Your task to perform on an android device: Clear the cart on walmart. Search for "razer deathadder" on walmart, select the first entry, and add it to the cart. Image 0: 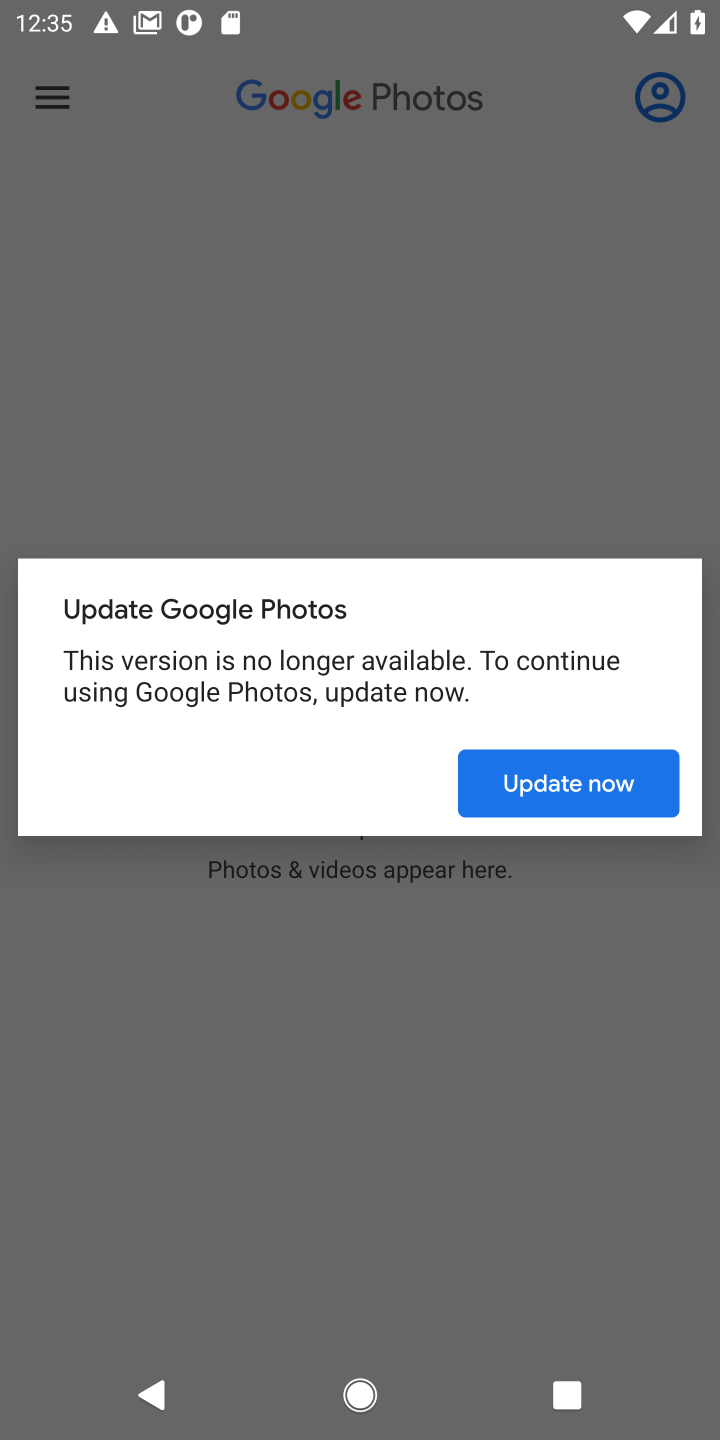
Step 0: press home button
Your task to perform on an android device: Clear the cart on walmart. Search for "razer deathadder" on walmart, select the first entry, and add it to the cart. Image 1: 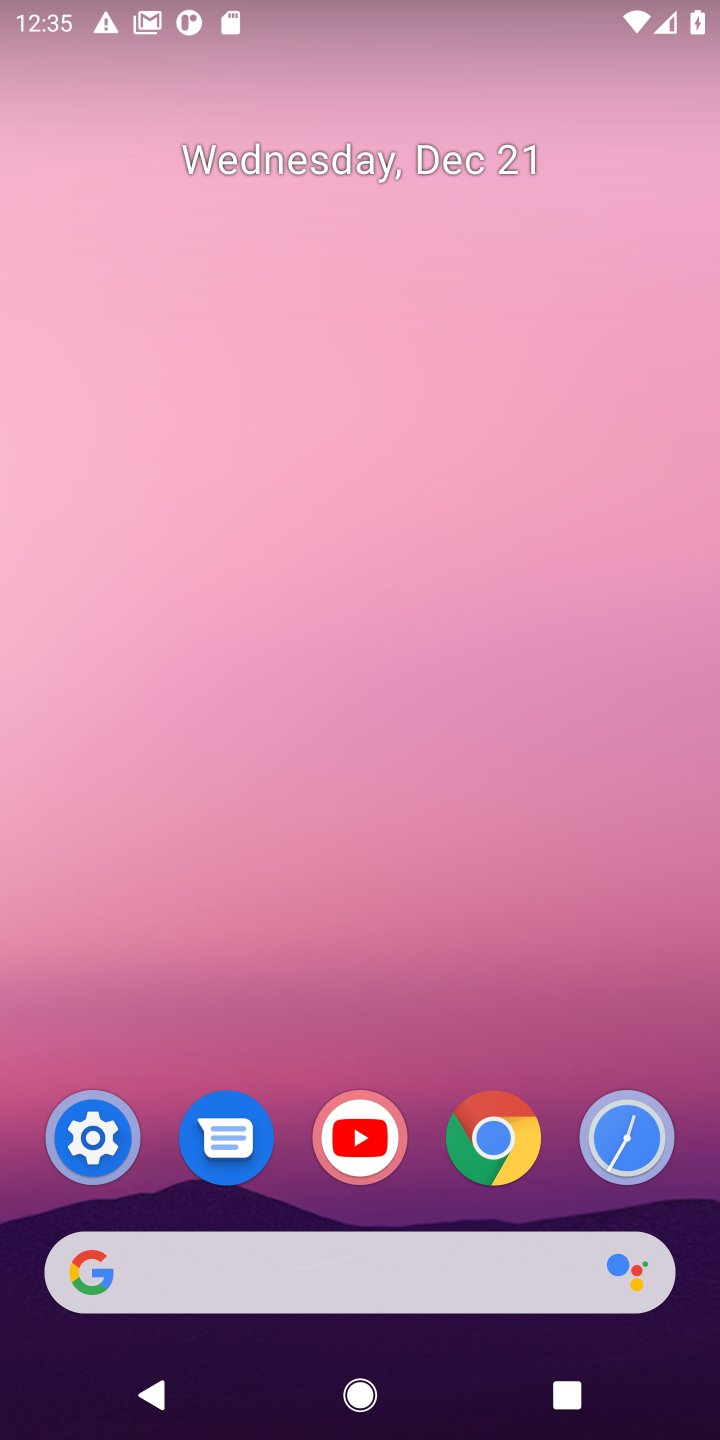
Step 1: click (429, 1285)
Your task to perform on an android device: Clear the cart on walmart. Search for "razer deathadder" on walmart, select the first entry, and add it to the cart. Image 2: 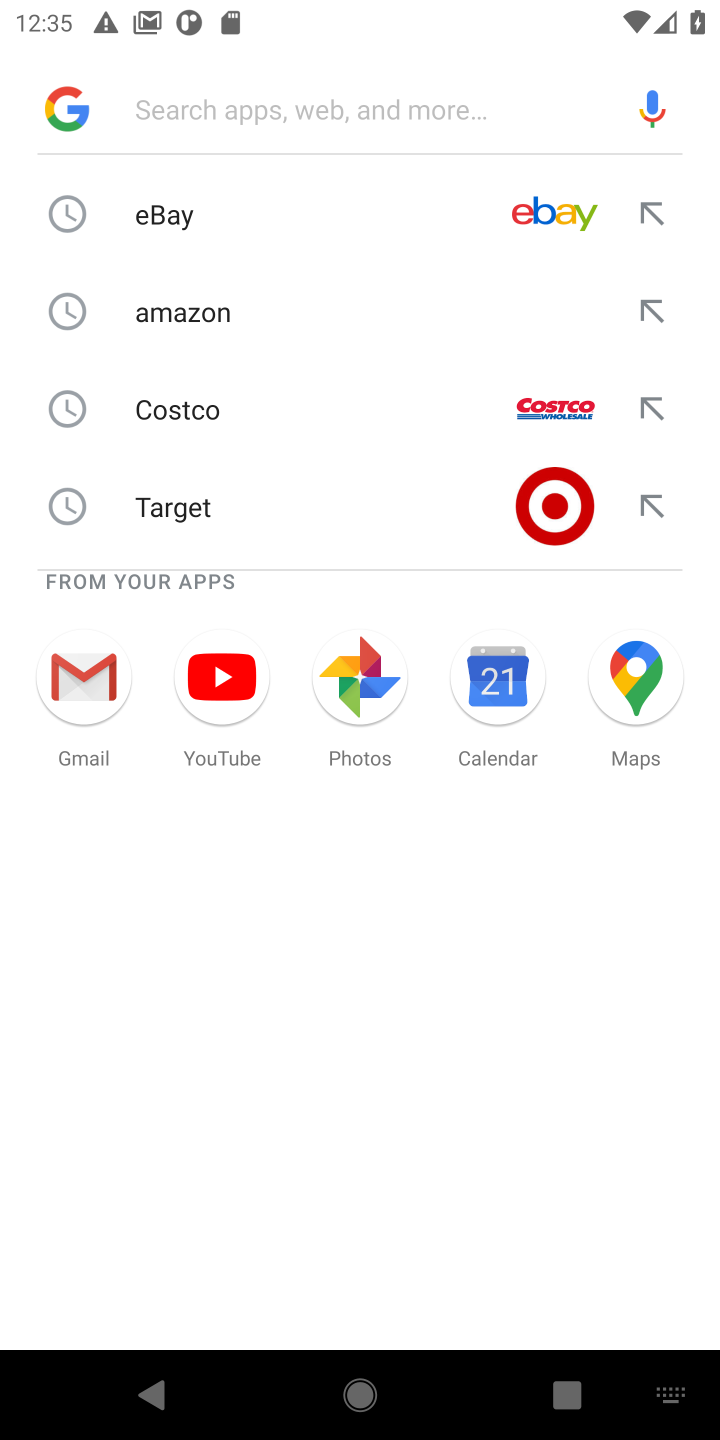
Step 2: type "walmart"
Your task to perform on an android device: Clear the cart on walmart. Search for "razer deathadder" on walmart, select the first entry, and add it to the cart. Image 3: 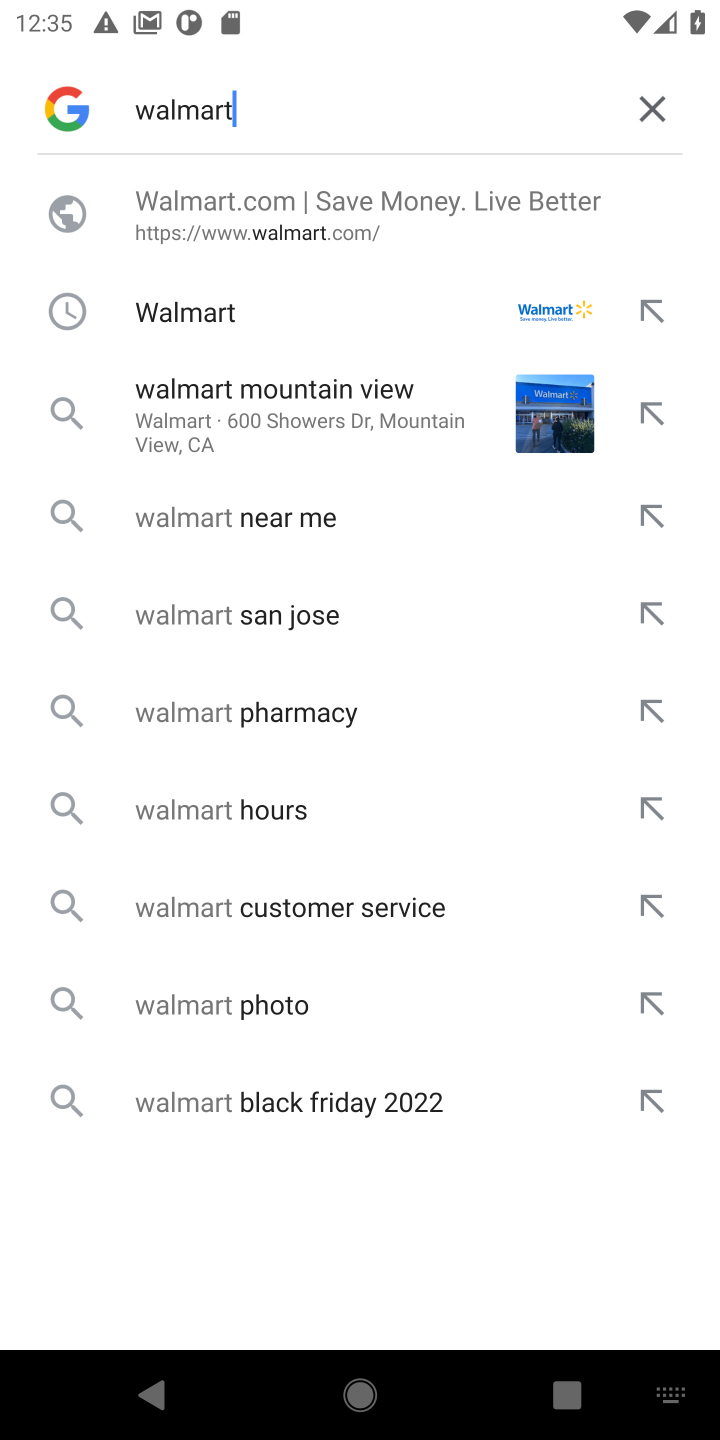
Step 3: click (361, 104)
Your task to perform on an android device: Clear the cart on walmart. Search for "razer deathadder" on walmart, select the first entry, and add it to the cart. Image 4: 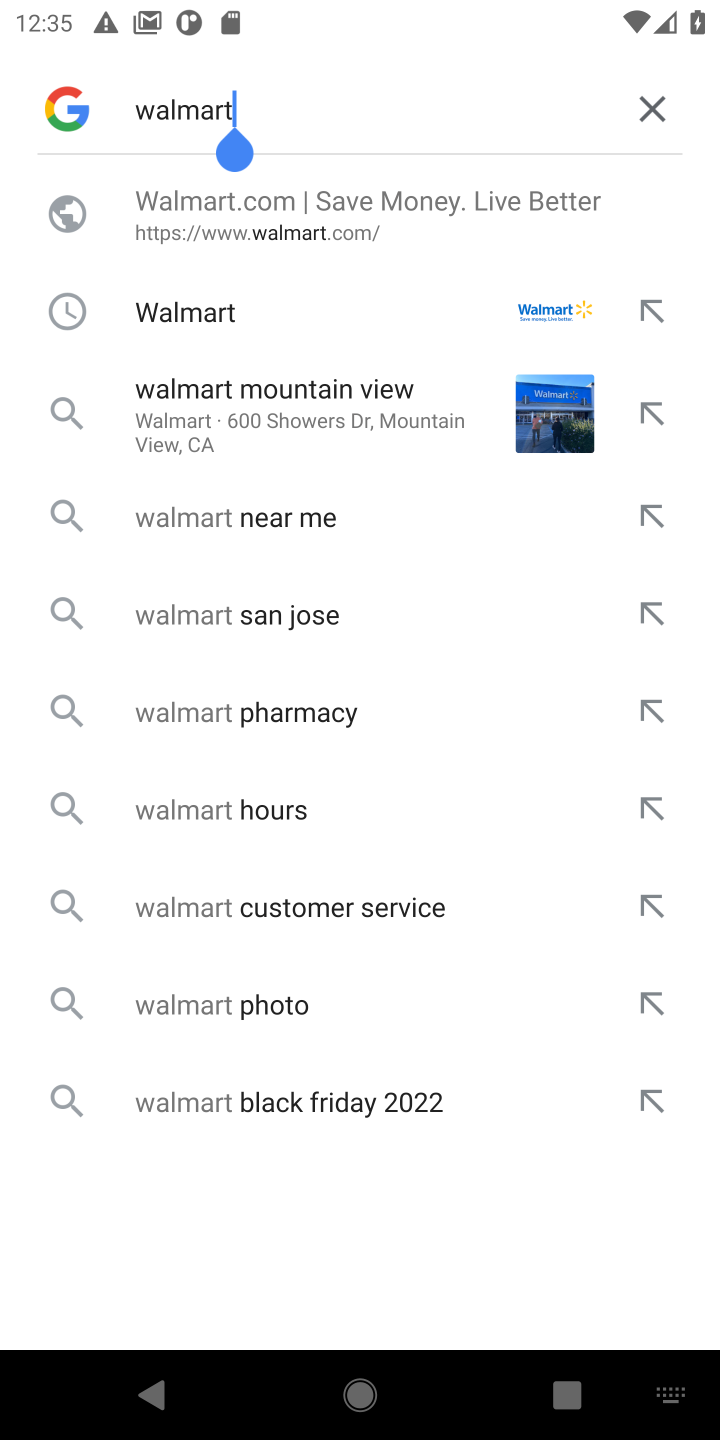
Step 4: click (332, 209)
Your task to perform on an android device: Clear the cart on walmart. Search for "razer deathadder" on walmart, select the first entry, and add it to the cart. Image 5: 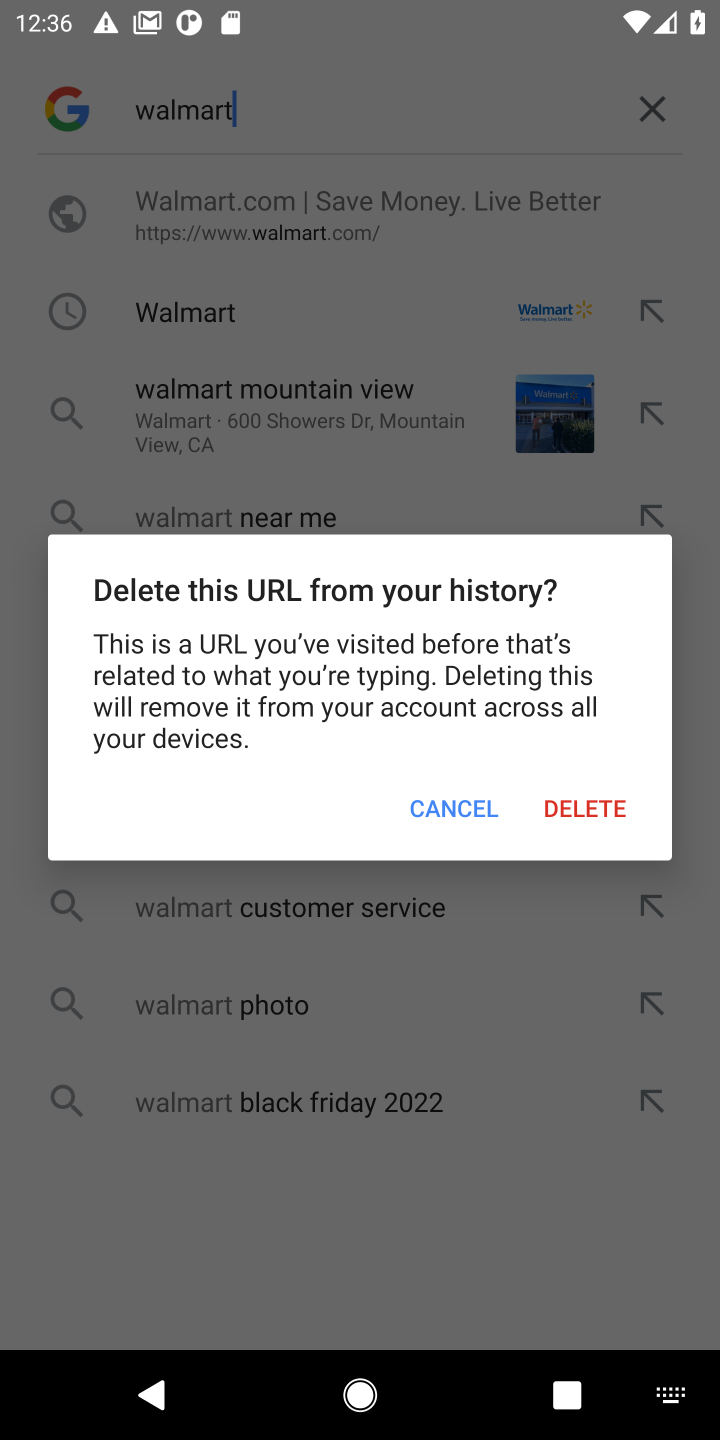
Step 5: click (464, 810)
Your task to perform on an android device: Clear the cart on walmart. Search for "razer deathadder" on walmart, select the first entry, and add it to the cart. Image 6: 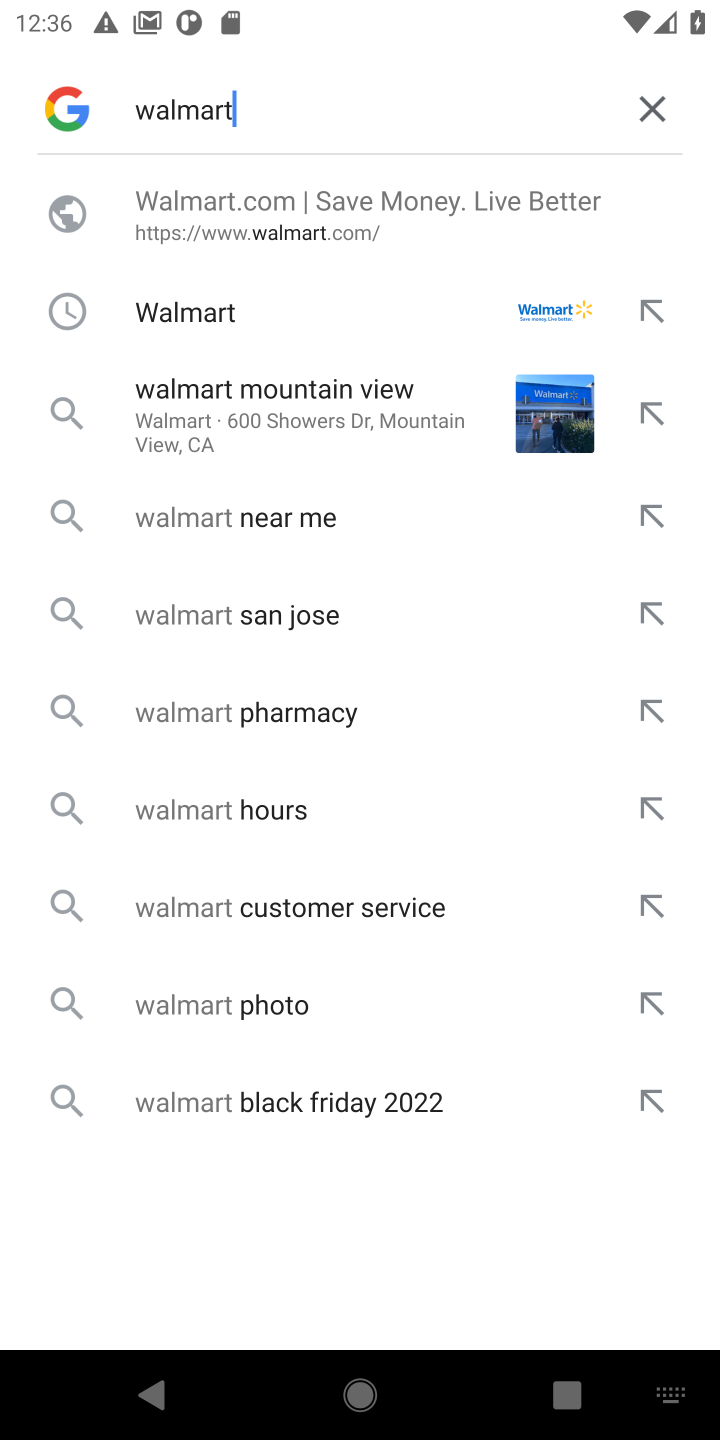
Step 6: click (464, 810)
Your task to perform on an android device: Clear the cart on walmart. Search for "razer deathadder" on walmart, select the first entry, and add it to the cart. Image 7: 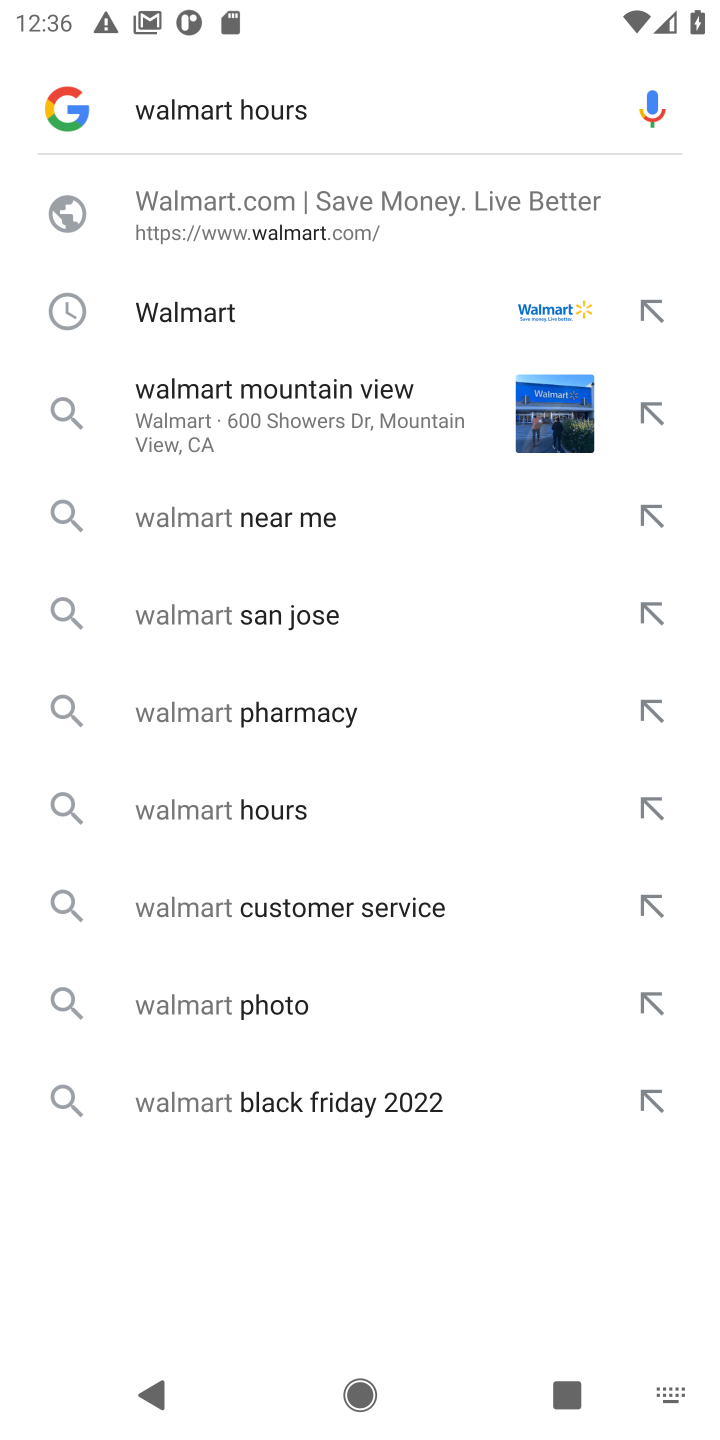
Step 7: click (341, 199)
Your task to perform on an android device: Clear the cart on walmart. Search for "razer deathadder" on walmart, select the first entry, and add it to the cart. Image 8: 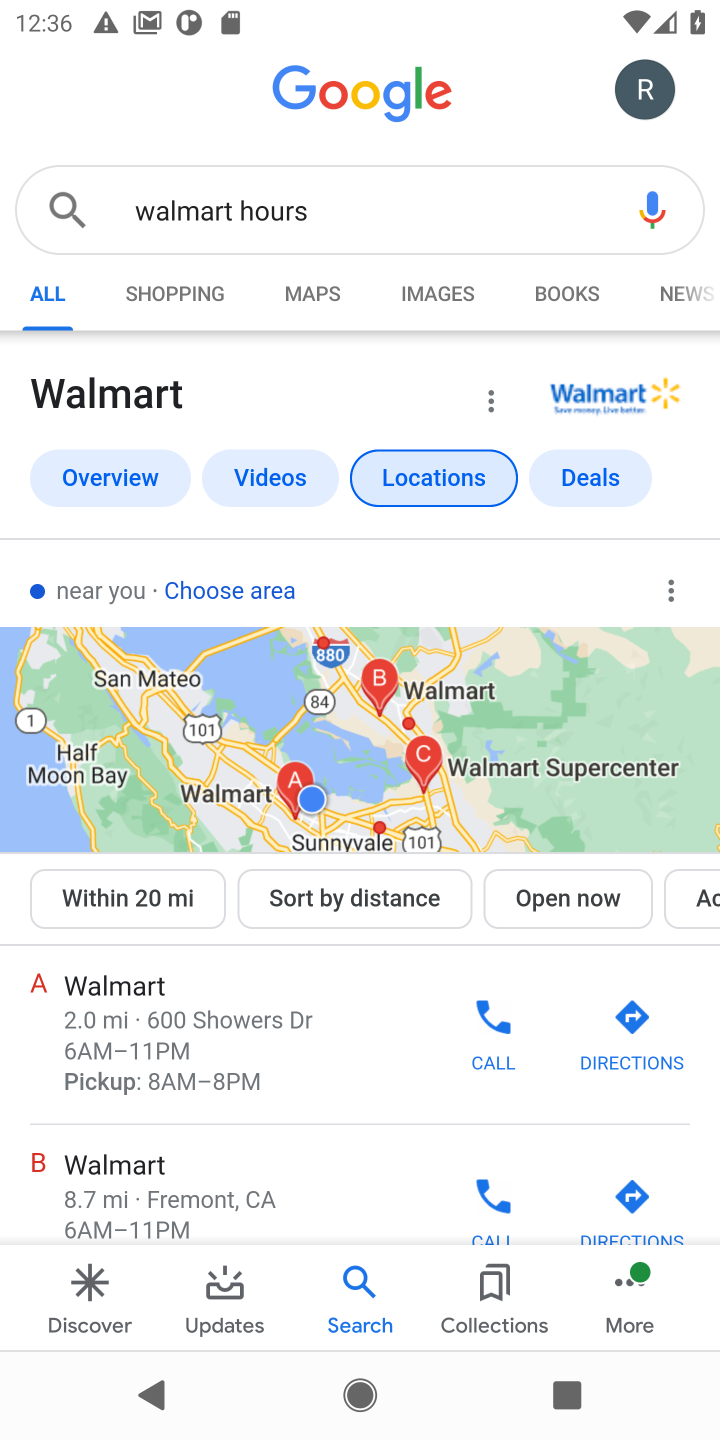
Step 8: click (107, 419)
Your task to perform on an android device: Clear the cart on walmart. Search for "razer deathadder" on walmart, select the first entry, and add it to the cart. Image 9: 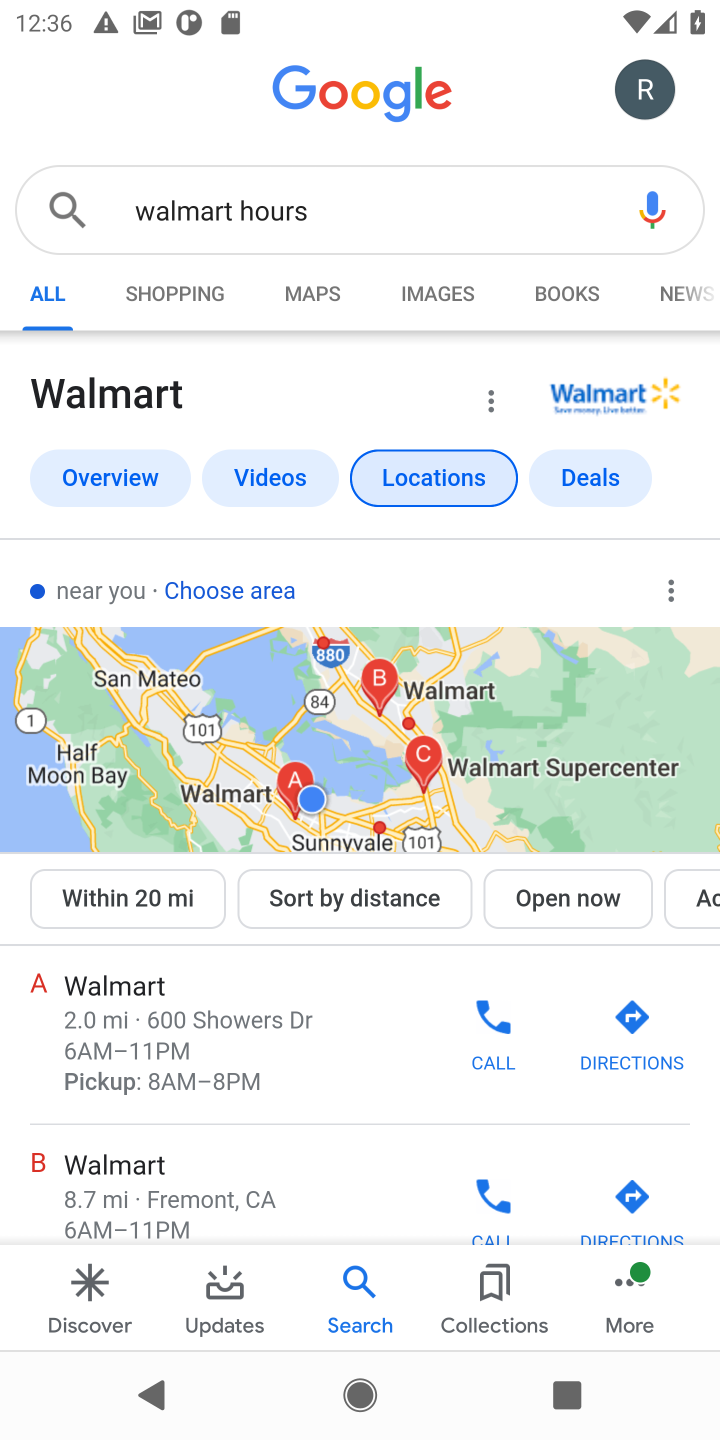
Step 9: task complete